Your task to perform on an android device: What's the weather going to be this weekend? Image 0: 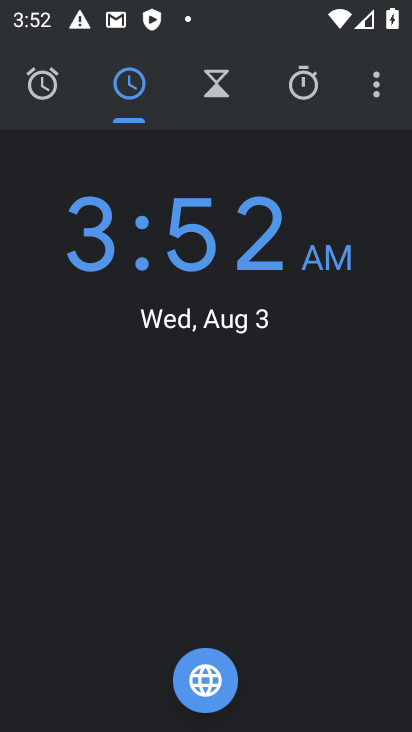
Step 0: press home button
Your task to perform on an android device: What's the weather going to be this weekend? Image 1: 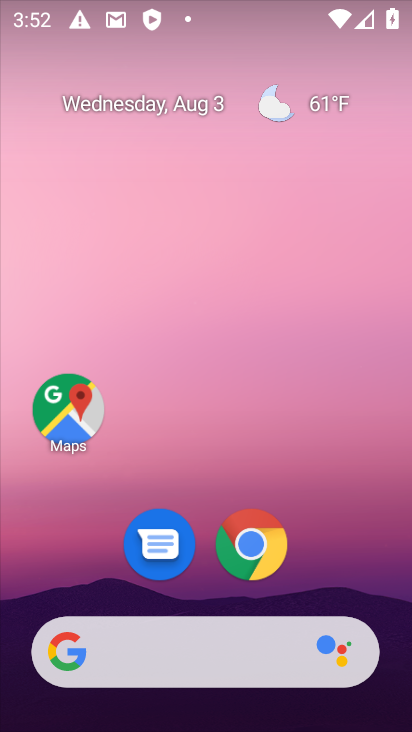
Step 1: click (243, 537)
Your task to perform on an android device: What's the weather going to be this weekend? Image 2: 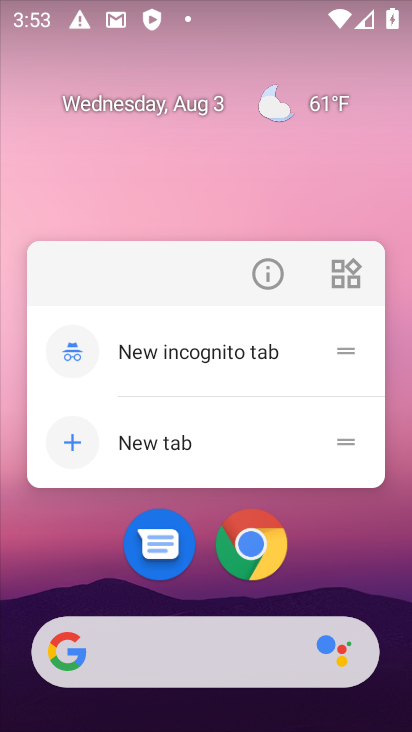
Step 2: click (257, 533)
Your task to perform on an android device: What's the weather going to be this weekend? Image 3: 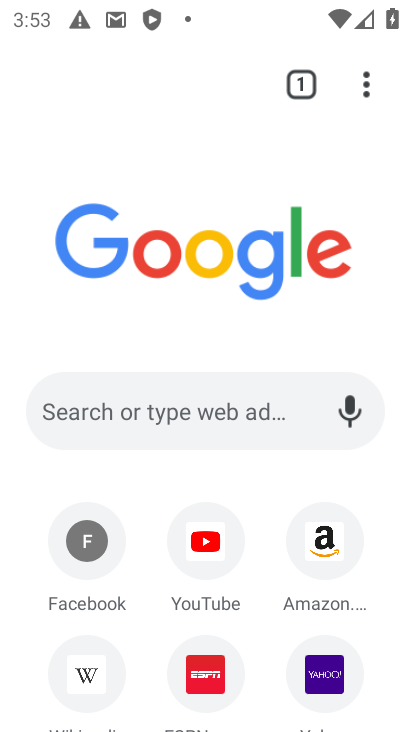
Step 3: click (175, 410)
Your task to perform on an android device: What's the weather going to be this weekend? Image 4: 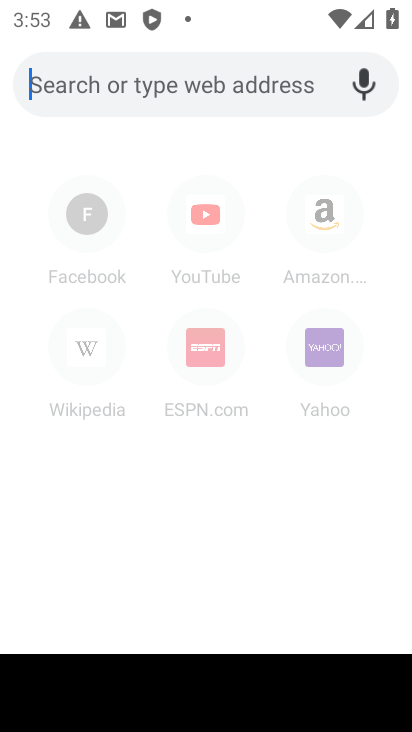
Step 4: type "What's the weather going to be this weekend?"
Your task to perform on an android device: What's the weather going to be this weekend? Image 5: 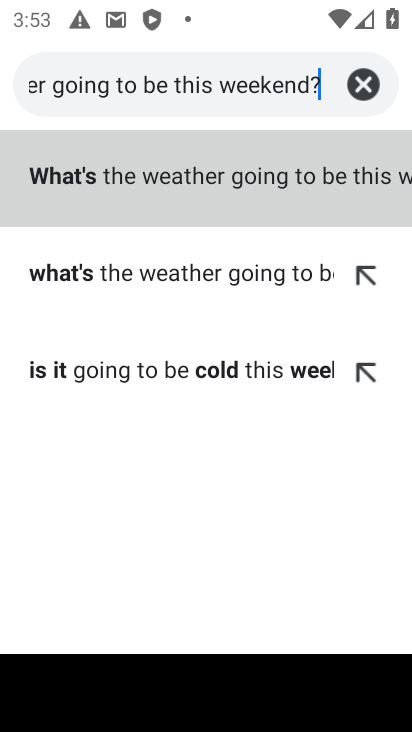
Step 5: type ""
Your task to perform on an android device: What's the weather going to be this weekend? Image 6: 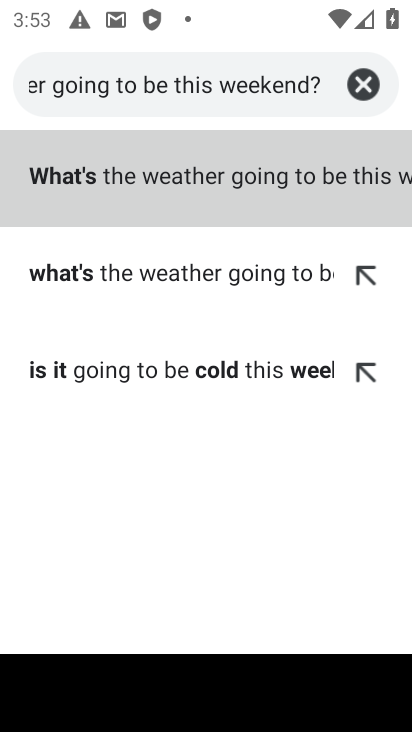
Step 6: click (115, 179)
Your task to perform on an android device: What's the weather going to be this weekend? Image 7: 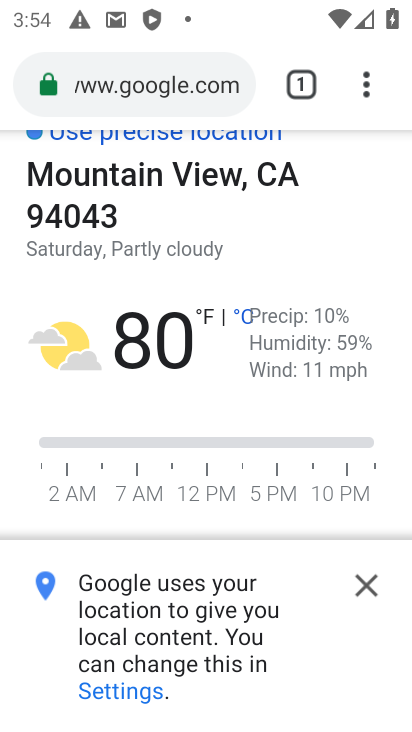
Step 7: task complete